Your task to perform on an android device: Go to Google maps Image 0: 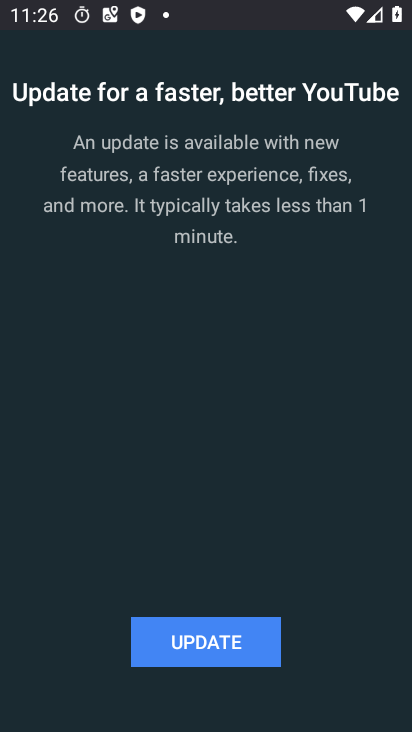
Step 0: press back button
Your task to perform on an android device: Go to Google maps Image 1: 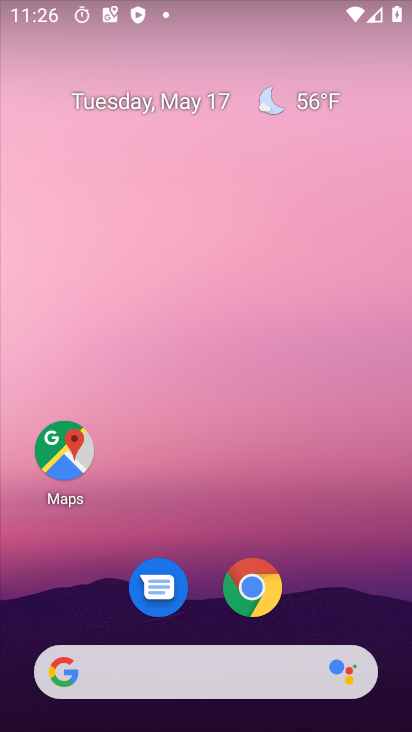
Step 1: click (65, 451)
Your task to perform on an android device: Go to Google maps Image 2: 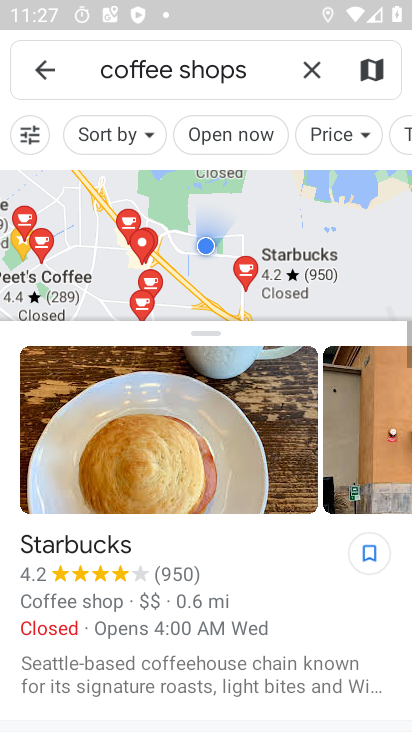
Step 2: click (319, 69)
Your task to perform on an android device: Go to Google maps Image 3: 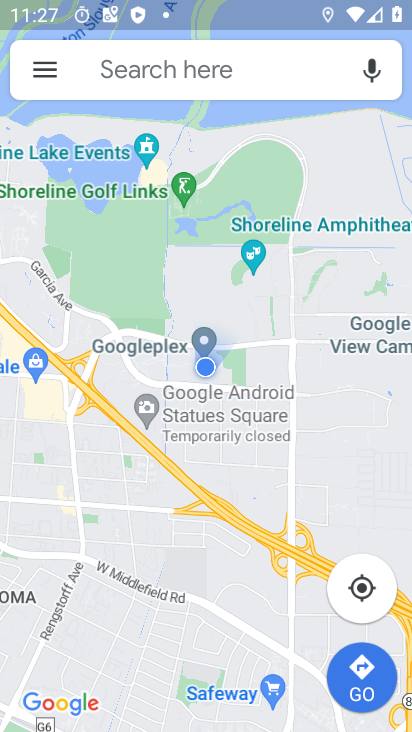
Step 3: task complete